Your task to perform on an android device: uninstall "Google Translate" Image 0: 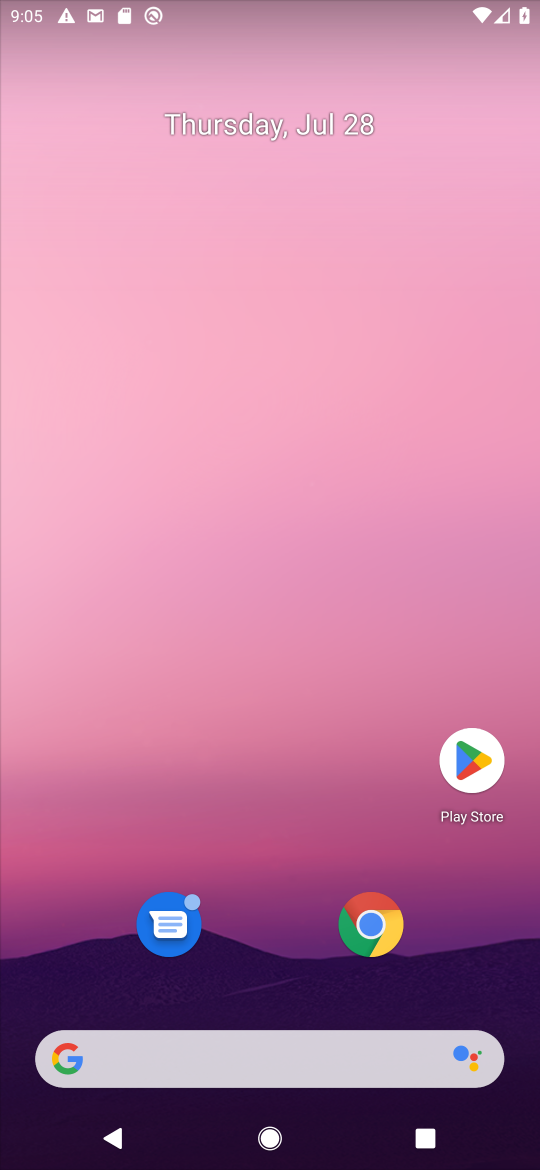
Step 0: press home button
Your task to perform on an android device: uninstall "Google Translate" Image 1: 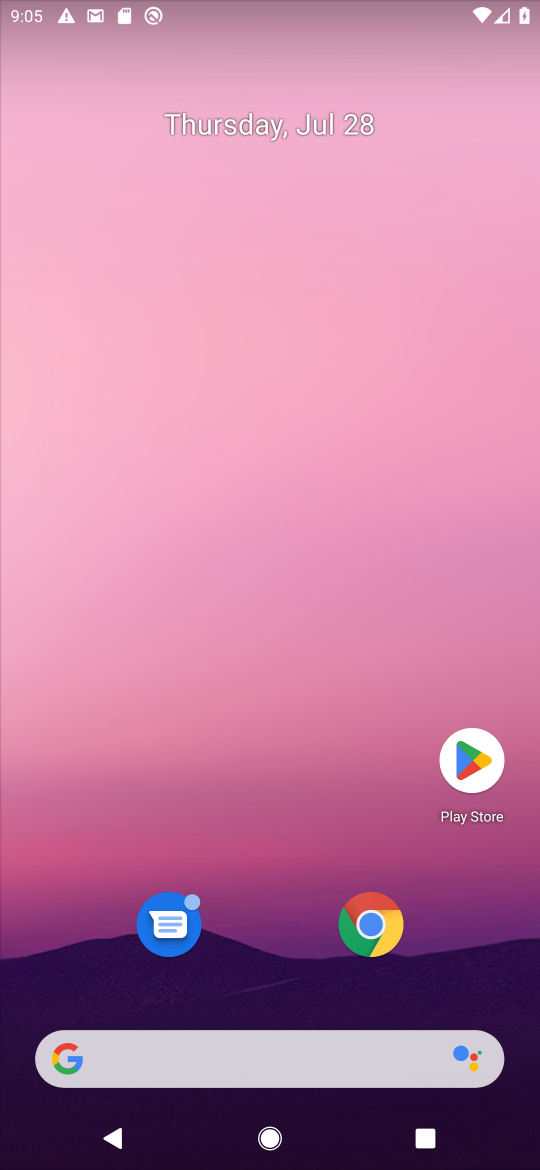
Step 1: click (468, 765)
Your task to perform on an android device: uninstall "Google Translate" Image 2: 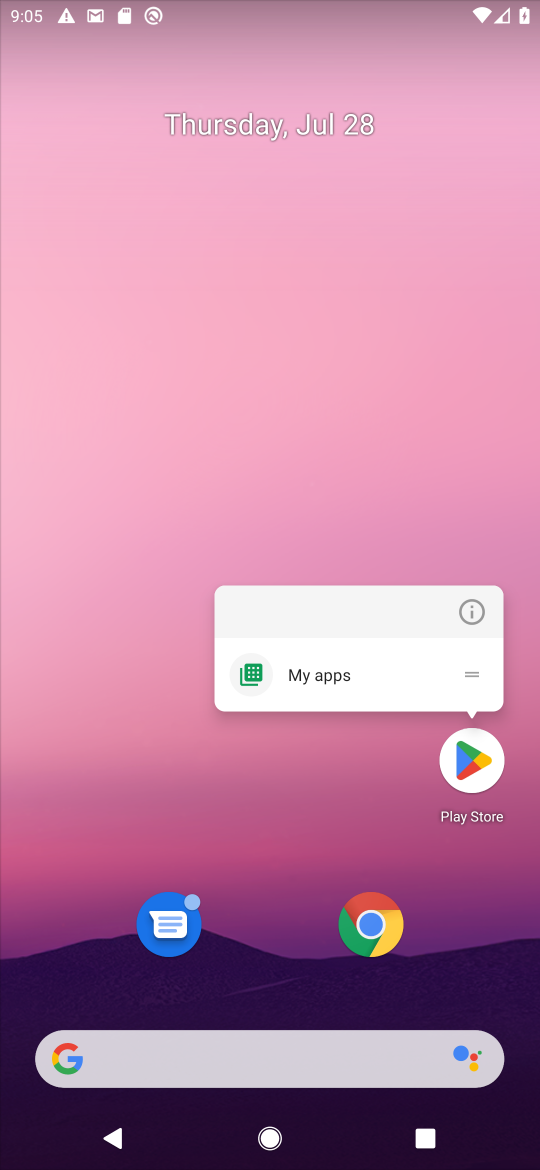
Step 2: click (469, 779)
Your task to perform on an android device: uninstall "Google Translate" Image 3: 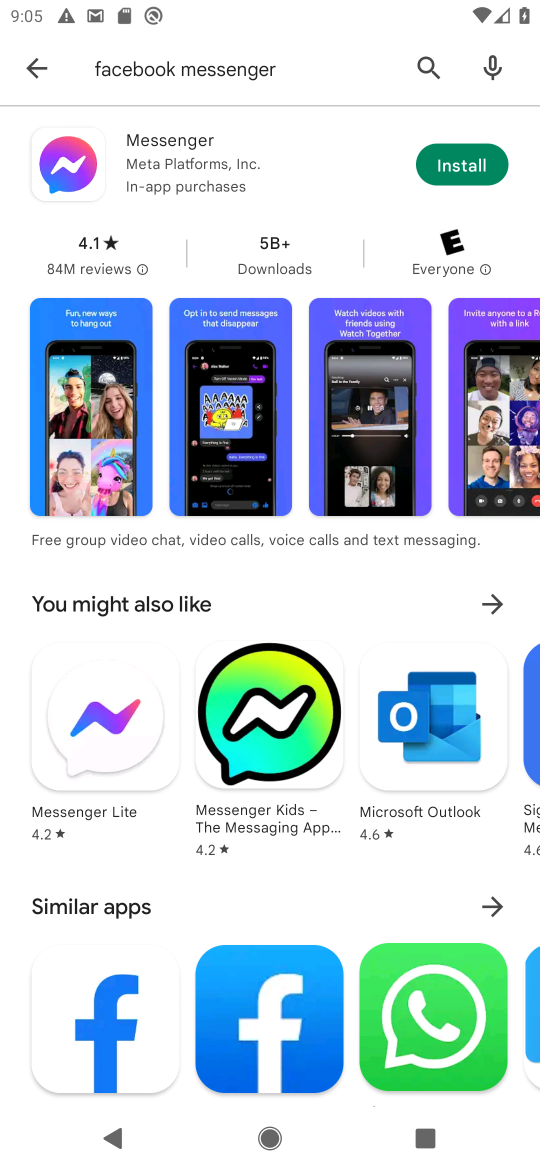
Step 3: click (416, 50)
Your task to perform on an android device: uninstall "Google Translate" Image 4: 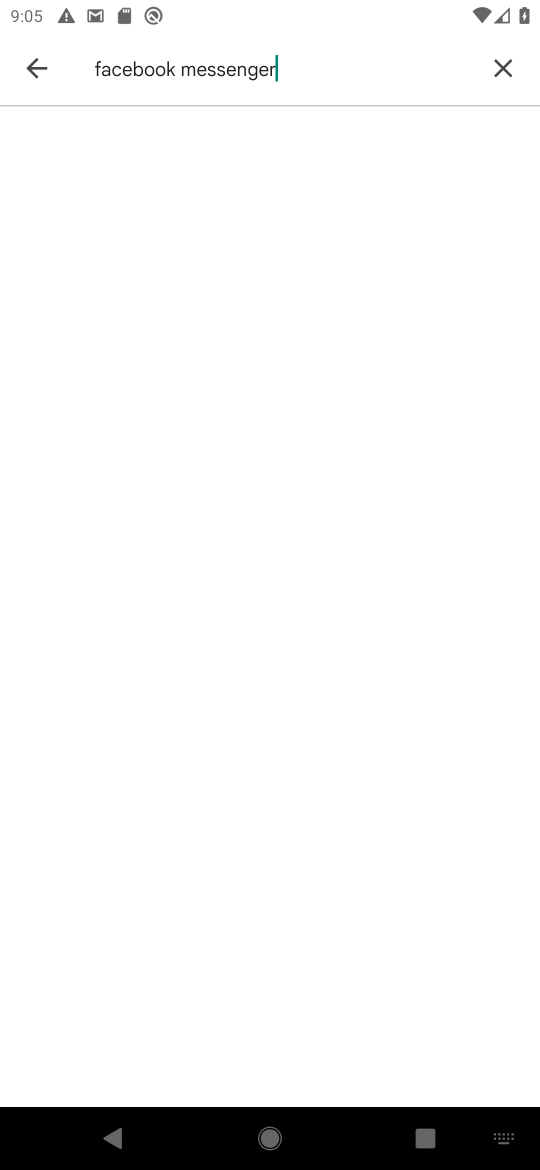
Step 4: click (503, 69)
Your task to perform on an android device: uninstall "Google Translate" Image 5: 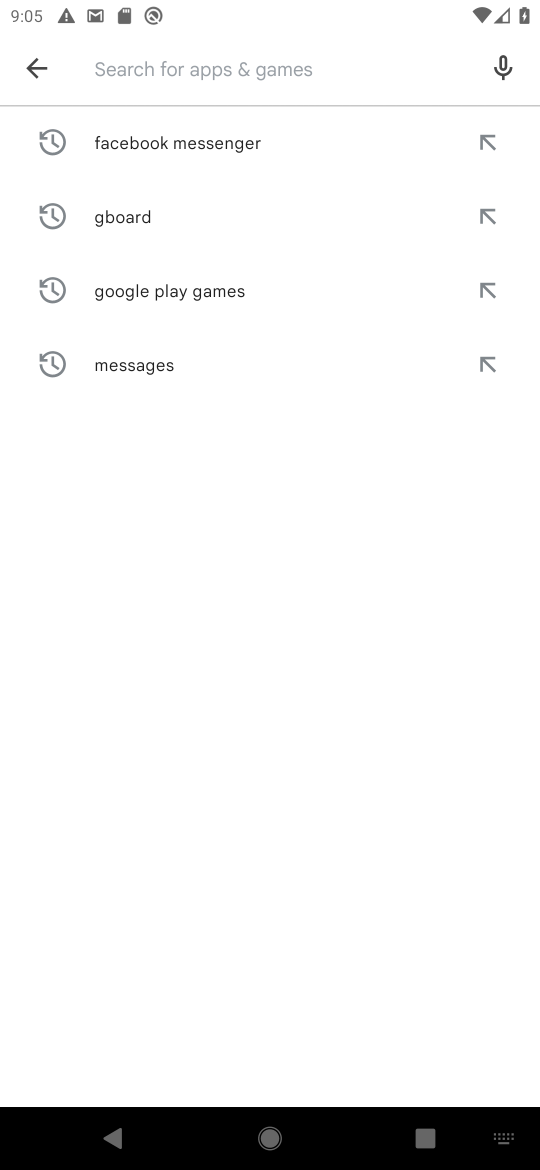
Step 5: type "Google Translate"
Your task to perform on an android device: uninstall "Google Translate" Image 6: 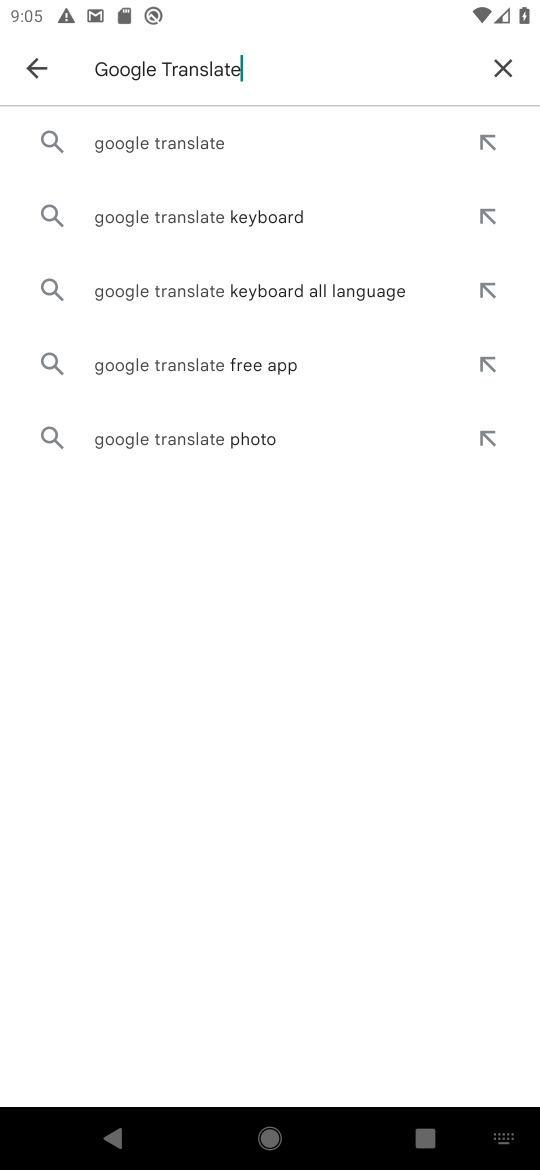
Step 6: click (191, 138)
Your task to perform on an android device: uninstall "Google Translate" Image 7: 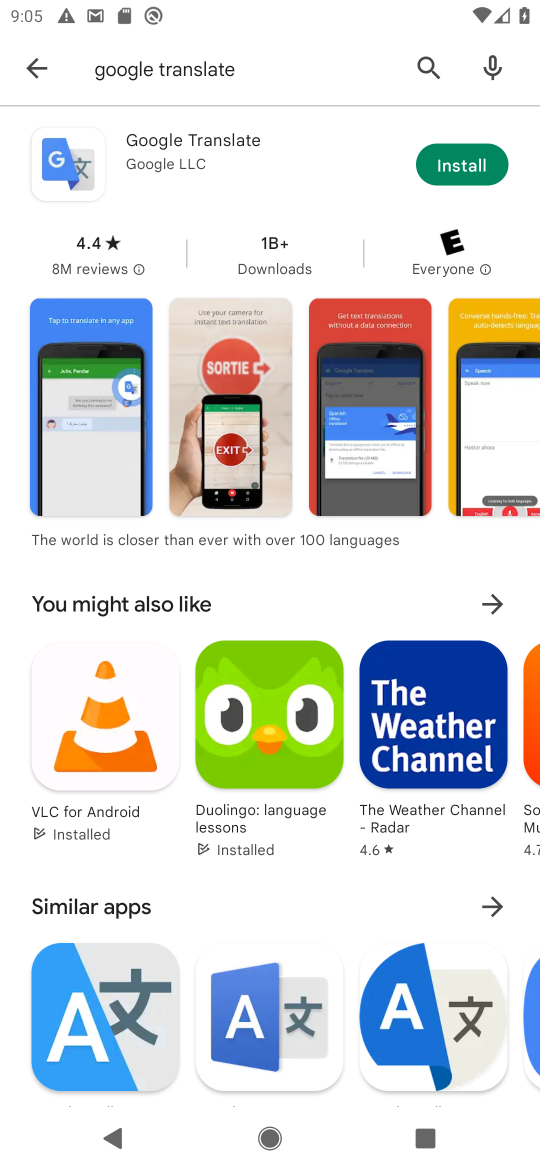
Step 7: task complete